Your task to perform on an android device: allow cookies in the chrome app Image 0: 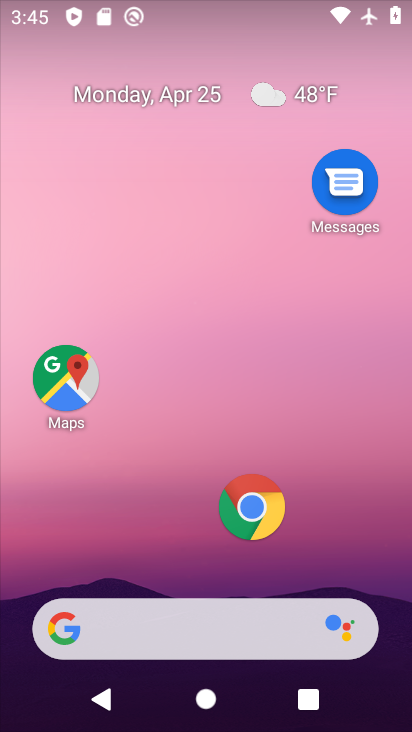
Step 0: drag from (147, 552) to (209, 74)
Your task to perform on an android device: allow cookies in the chrome app Image 1: 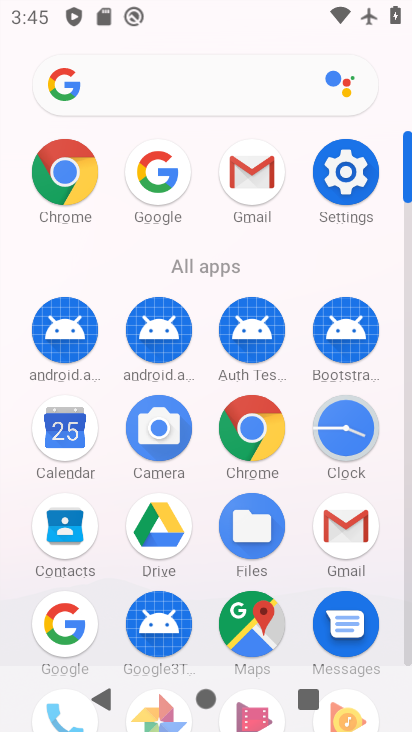
Step 1: click (258, 425)
Your task to perform on an android device: allow cookies in the chrome app Image 2: 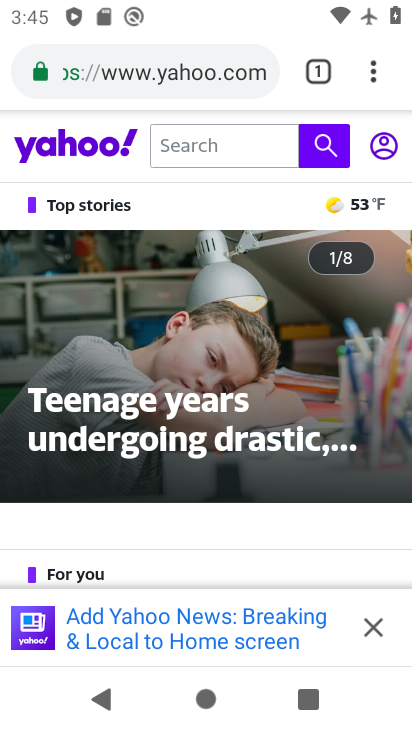
Step 2: drag from (372, 80) to (268, 517)
Your task to perform on an android device: allow cookies in the chrome app Image 3: 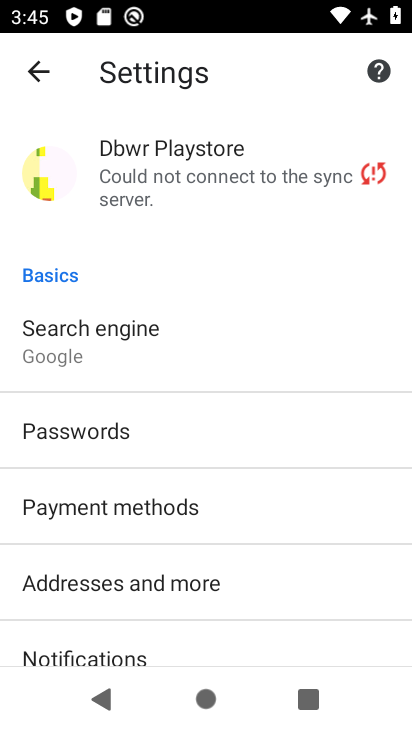
Step 3: drag from (232, 625) to (329, 210)
Your task to perform on an android device: allow cookies in the chrome app Image 4: 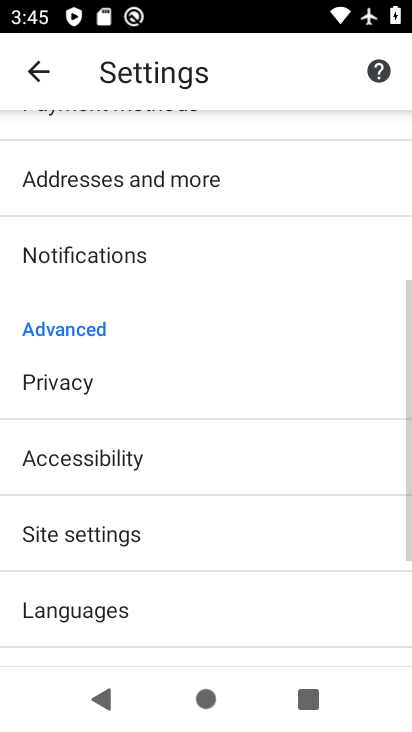
Step 4: click (198, 539)
Your task to perform on an android device: allow cookies in the chrome app Image 5: 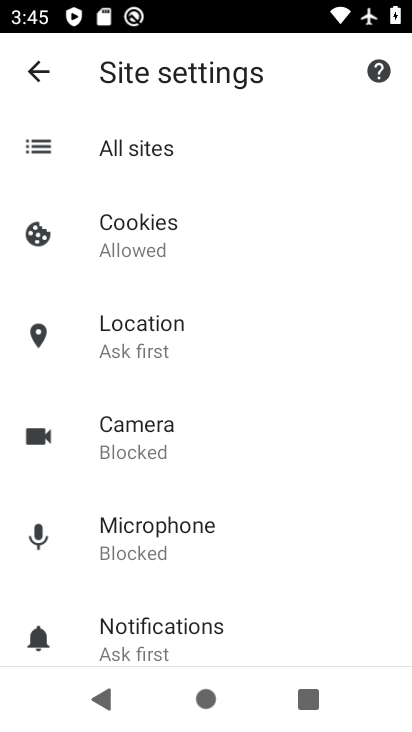
Step 5: click (246, 245)
Your task to perform on an android device: allow cookies in the chrome app Image 6: 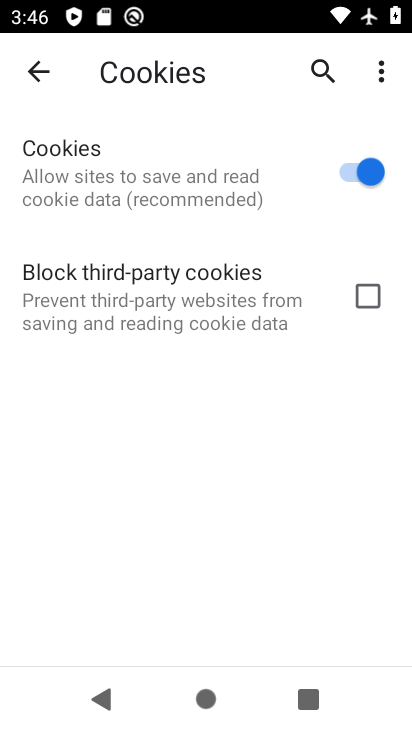
Step 6: task complete